Your task to perform on an android device: Open the Play Movies app and select the watchlist tab. Image 0: 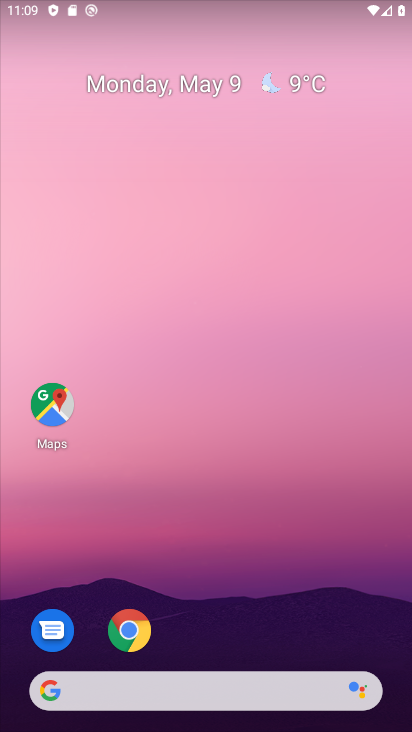
Step 0: drag from (219, 543) to (130, 4)
Your task to perform on an android device: Open the Play Movies app and select the watchlist tab. Image 1: 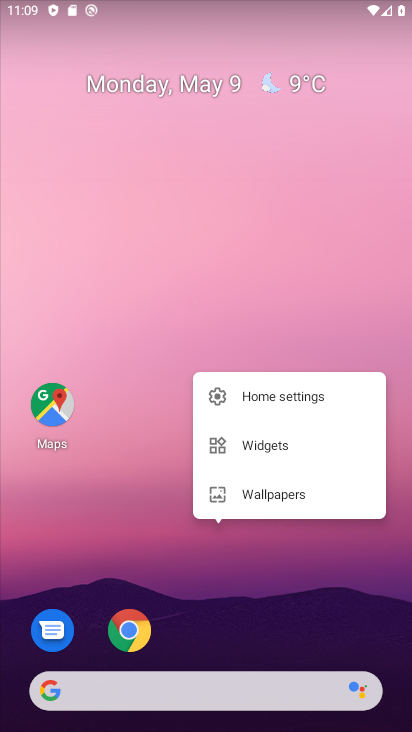
Step 1: click (212, 577)
Your task to perform on an android device: Open the Play Movies app and select the watchlist tab. Image 2: 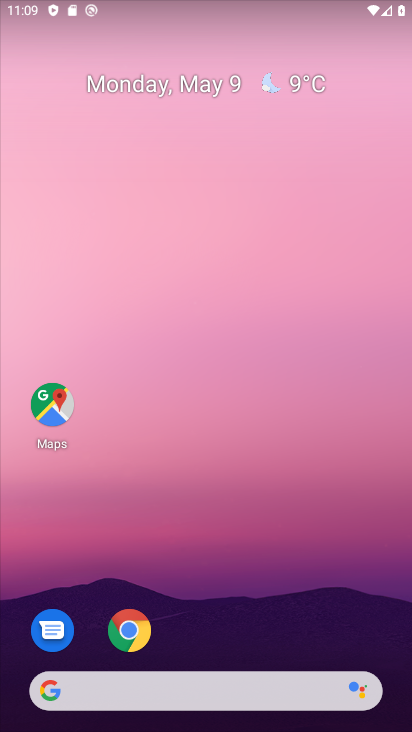
Step 2: drag from (250, 563) to (174, 20)
Your task to perform on an android device: Open the Play Movies app and select the watchlist tab. Image 3: 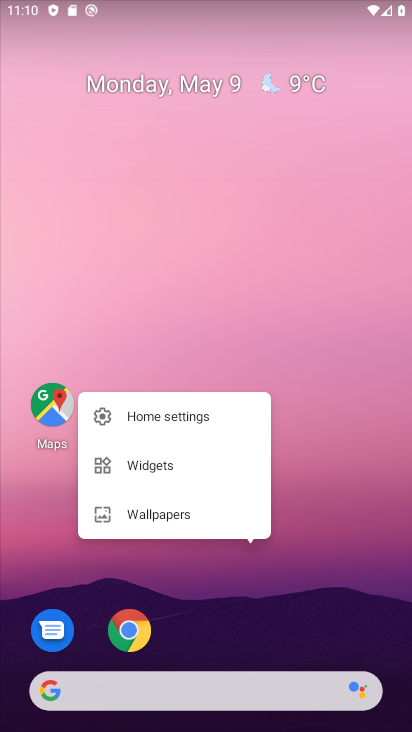
Step 3: click (297, 446)
Your task to perform on an android device: Open the Play Movies app and select the watchlist tab. Image 4: 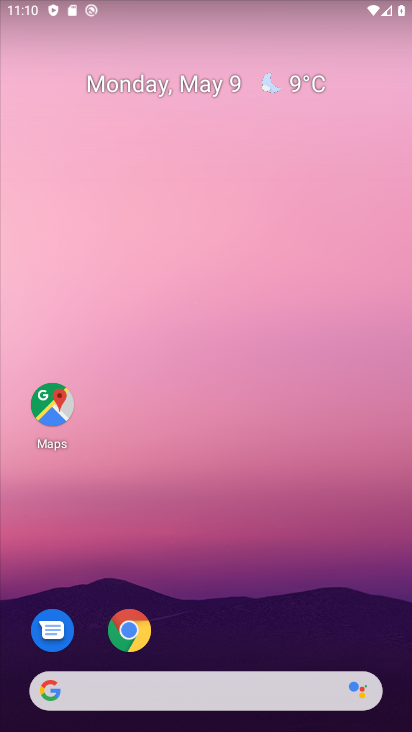
Step 4: drag from (206, 459) to (197, 28)
Your task to perform on an android device: Open the Play Movies app and select the watchlist tab. Image 5: 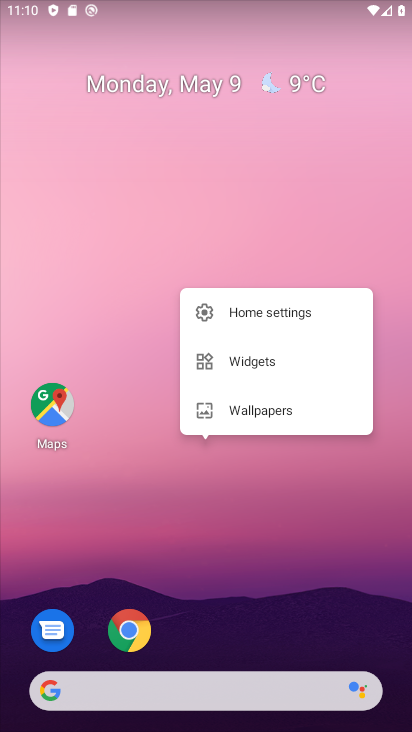
Step 5: click (174, 493)
Your task to perform on an android device: Open the Play Movies app and select the watchlist tab. Image 6: 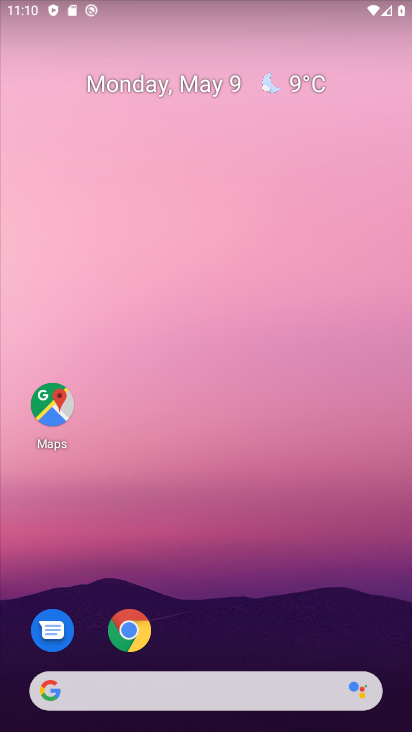
Step 6: drag from (263, 645) to (263, 50)
Your task to perform on an android device: Open the Play Movies app and select the watchlist tab. Image 7: 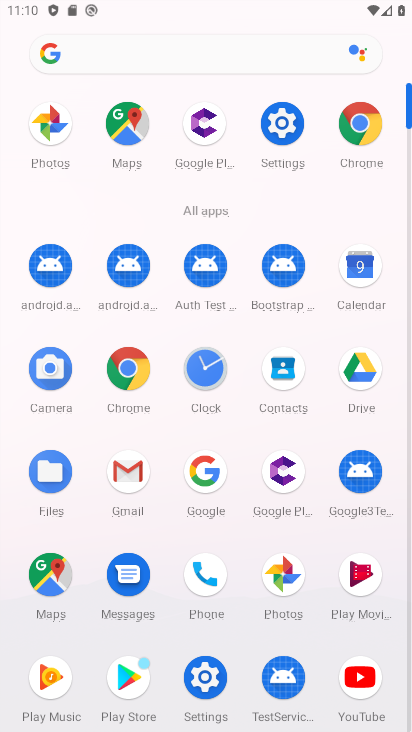
Step 7: click (346, 559)
Your task to perform on an android device: Open the Play Movies app and select the watchlist tab. Image 8: 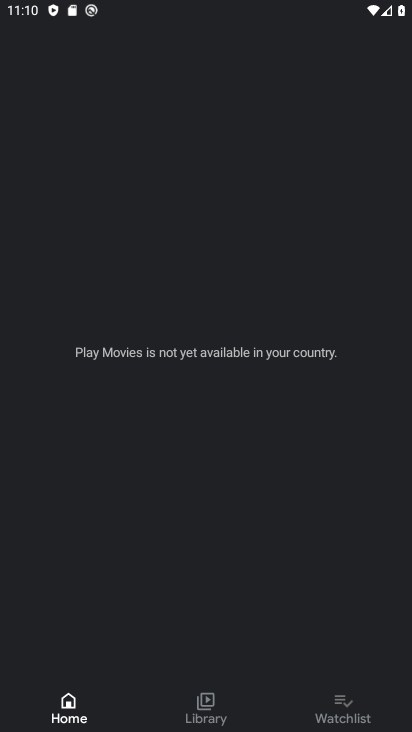
Step 8: click (342, 703)
Your task to perform on an android device: Open the Play Movies app and select the watchlist tab. Image 9: 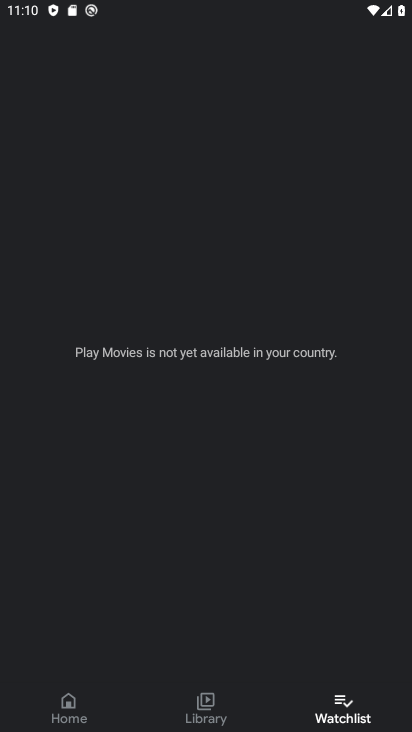
Step 9: task complete